Your task to perform on an android device: change your default location settings in chrome Image 0: 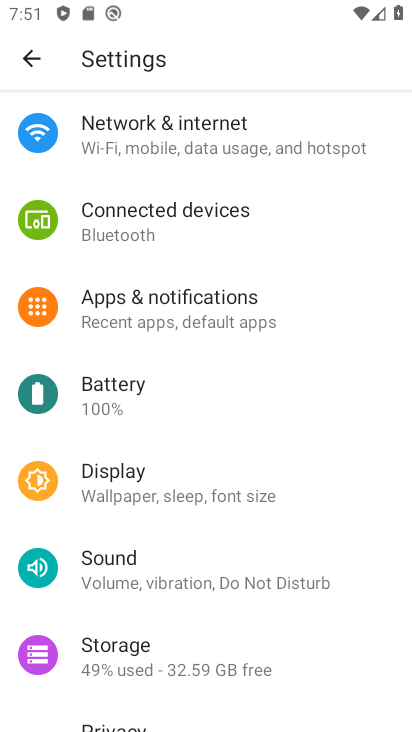
Step 0: press home button
Your task to perform on an android device: change your default location settings in chrome Image 1: 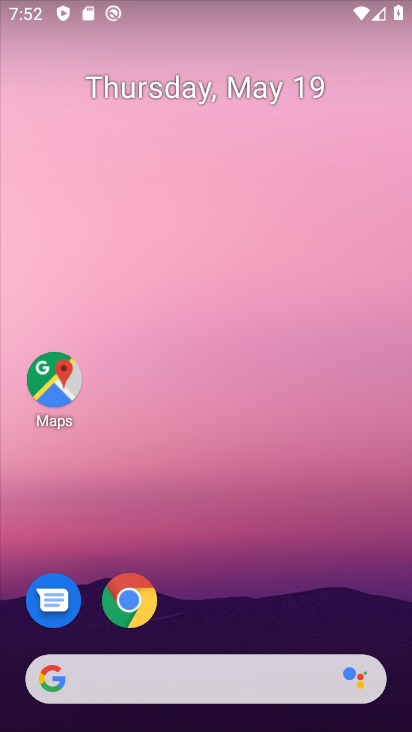
Step 1: click (131, 608)
Your task to perform on an android device: change your default location settings in chrome Image 2: 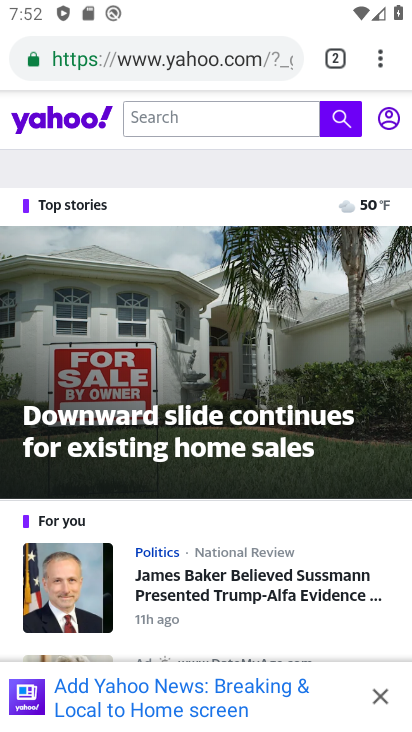
Step 2: click (382, 60)
Your task to perform on an android device: change your default location settings in chrome Image 3: 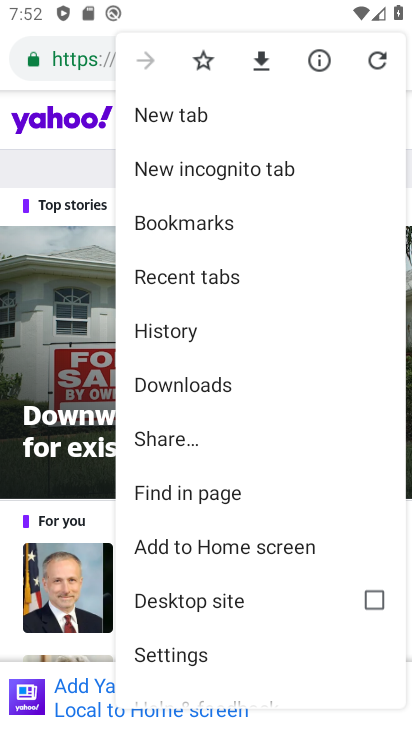
Step 3: click (192, 664)
Your task to perform on an android device: change your default location settings in chrome Image 4: 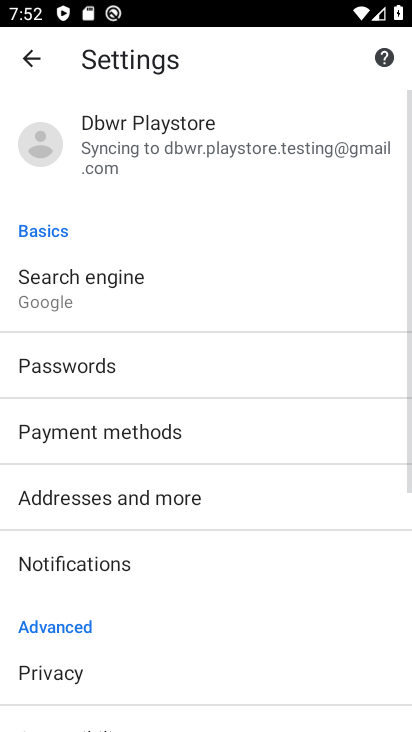
Step 4: drag from (191, 636) to (195, 328)
Your task to perform on an android device: change your default location settings in chrome Image 5: 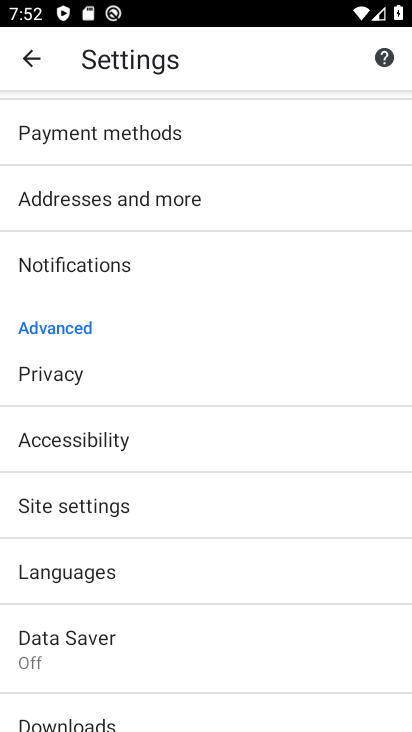
Step 5: click (125, 501)
Your task to perform on an android device: change your default location settings in chrome Image 6: 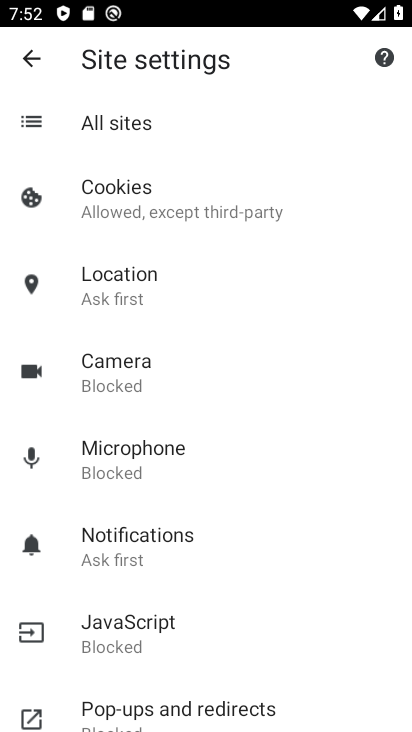
Step 6: click (113, 300)
Your task to perform on an android device: change your default location settings in chrome Image 7: 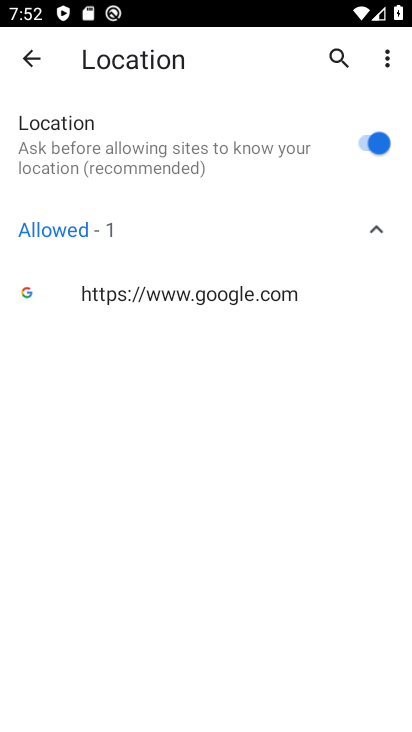
Step 7: click (364, 150)
Your task to perform on an android device: change your default location settings in chrome Image 8: 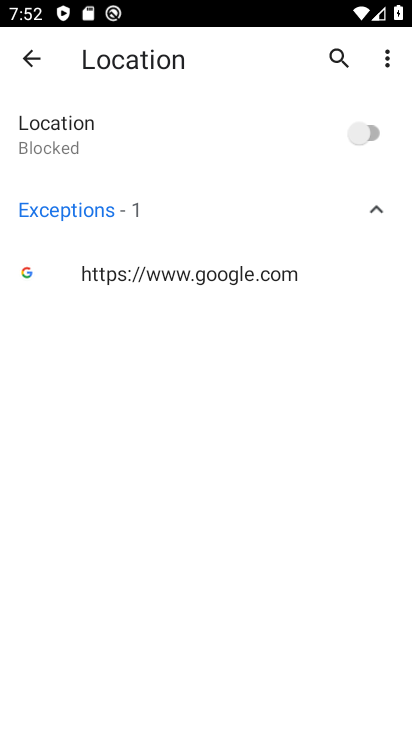
Step 8: task complete